Your task to perform on an android device: Go to privacy settings Image 0: 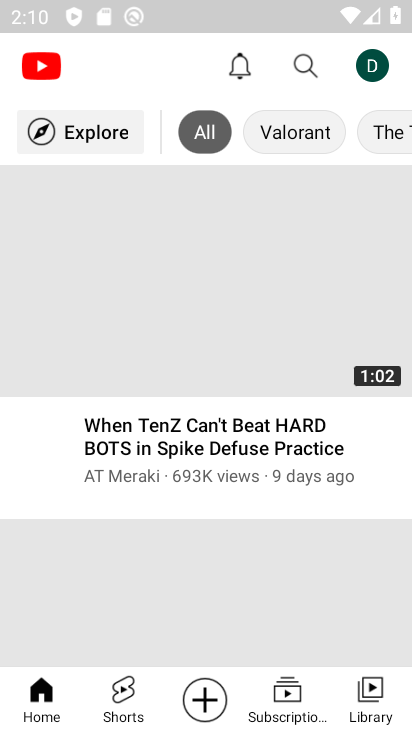
Step 0: press home button
Your task to perform on an android device: Go to privacy settings Image 1: 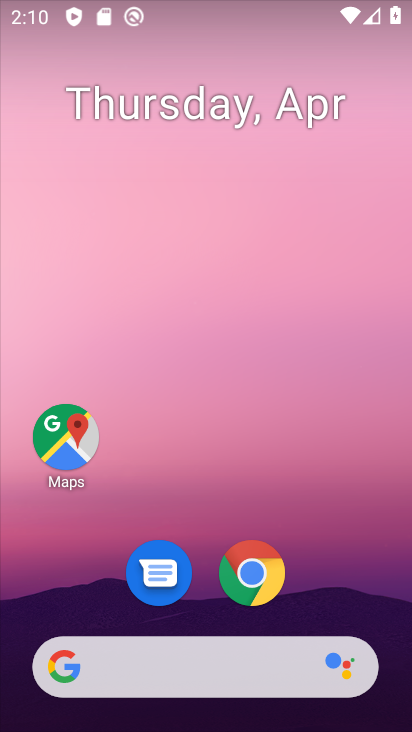
Step 1: drag from (345, 602) to (281, 182)
Your task to perform on an android device: Go to privacy settings Image 2: 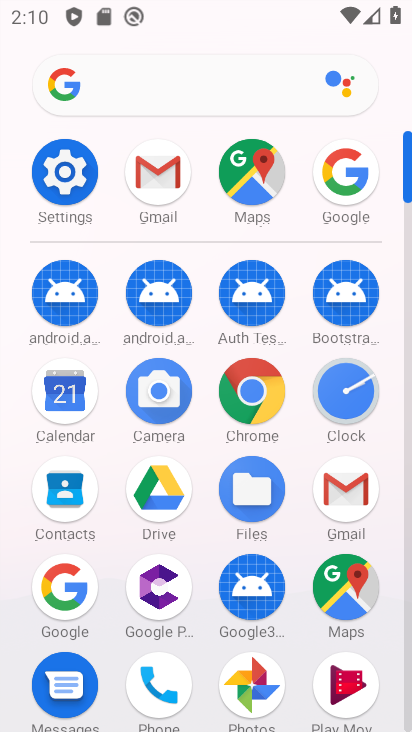
Step 2: click (57, 158)
Your task to perform on an android device: Go to privacy settings Image 3: 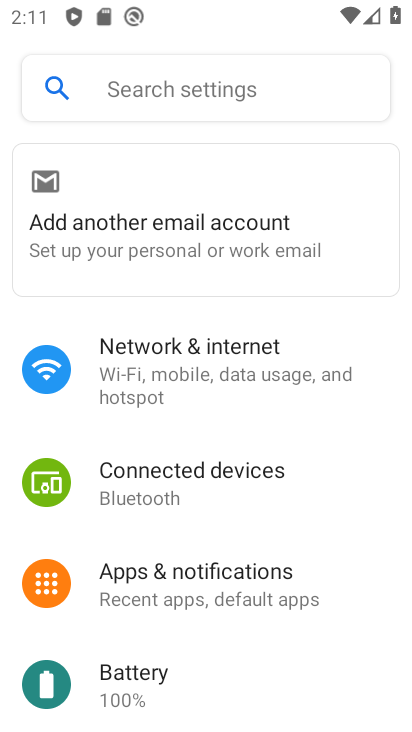
Step 3: drag from (202, 676) to (210, 320)
Your task to perform on an android device: Go to privacy settings Image 4: 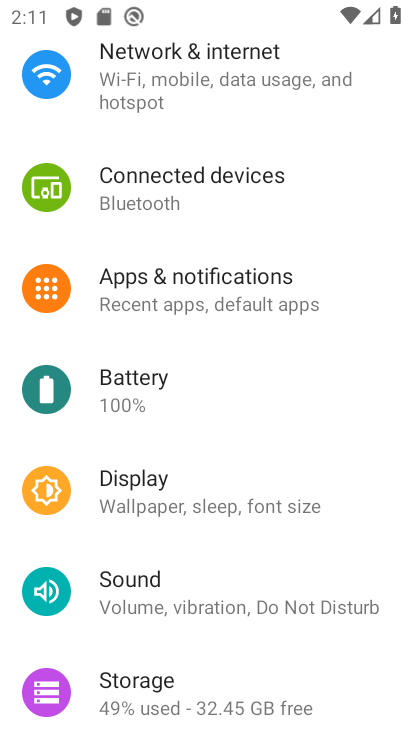
Step 4: drag from (183, 620) to (200, 303)
Your task to perform on an android device: Go to privacy settings Image 5: 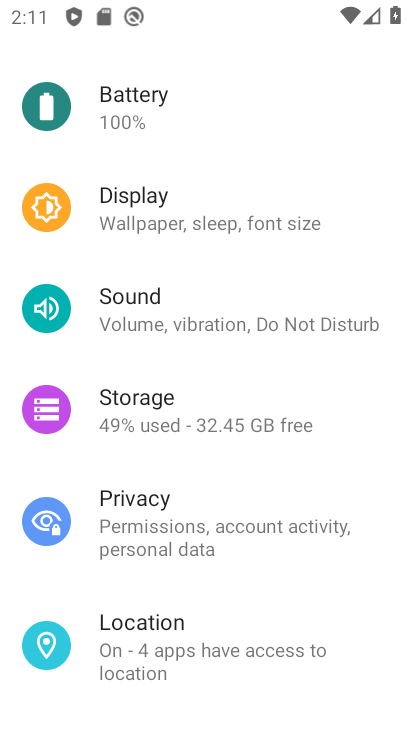
Step 5: click (180, 522)
Your task to perform on an android device: Go to privacy settings Image 6: 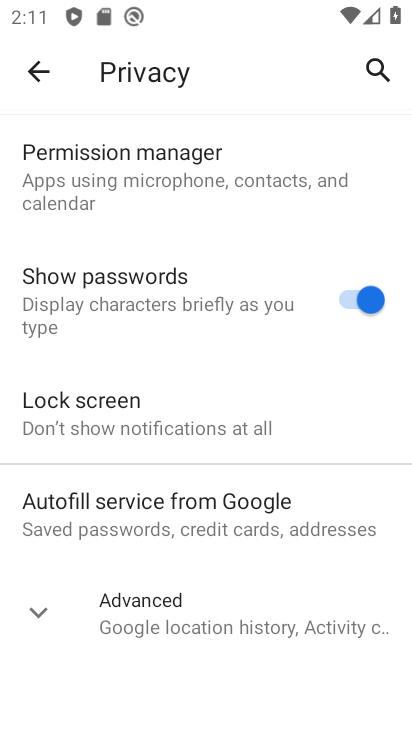
Step 6: task complete